Your task to perform on an android device: Toggle the flashlight Image 0: 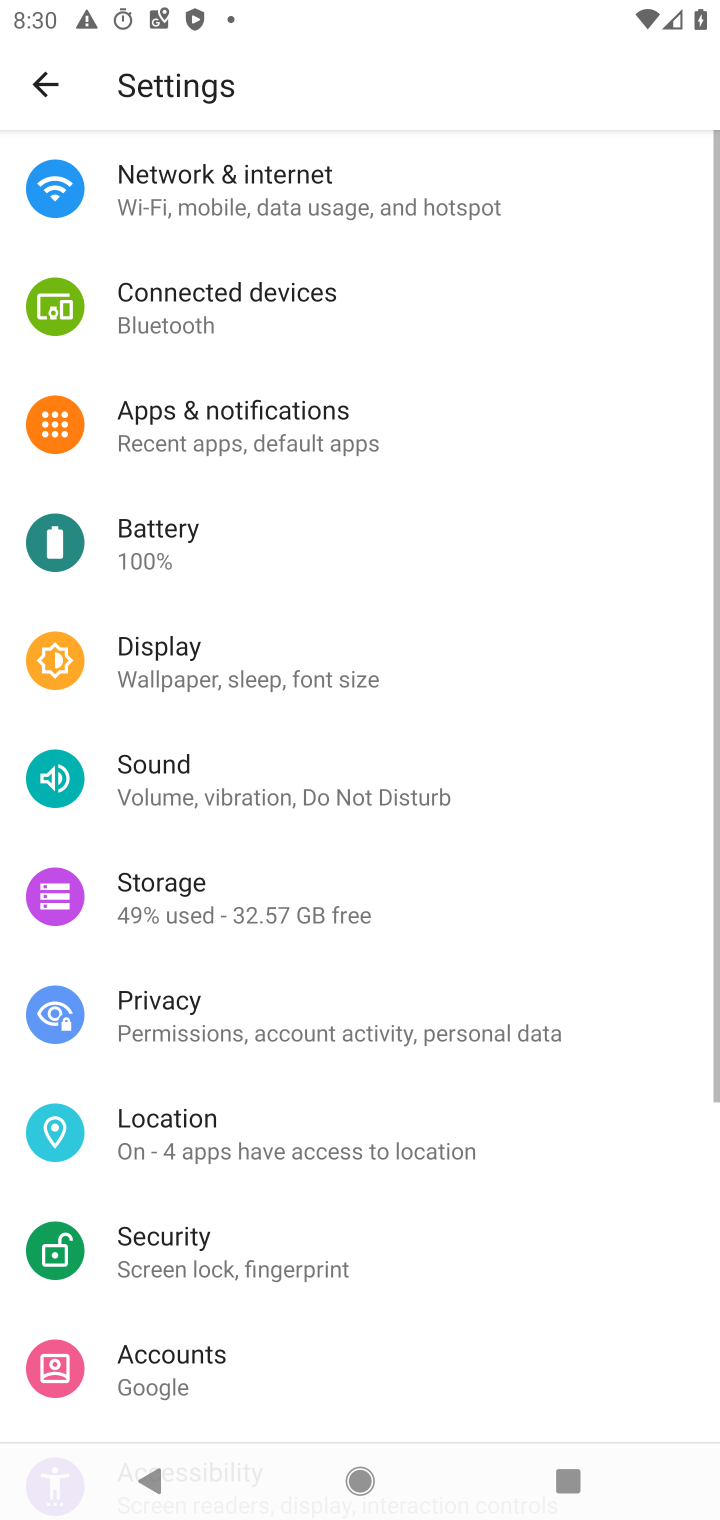
Step 0: press home button
Your task to perform on an android device: Toggle the flashlight Image 1: 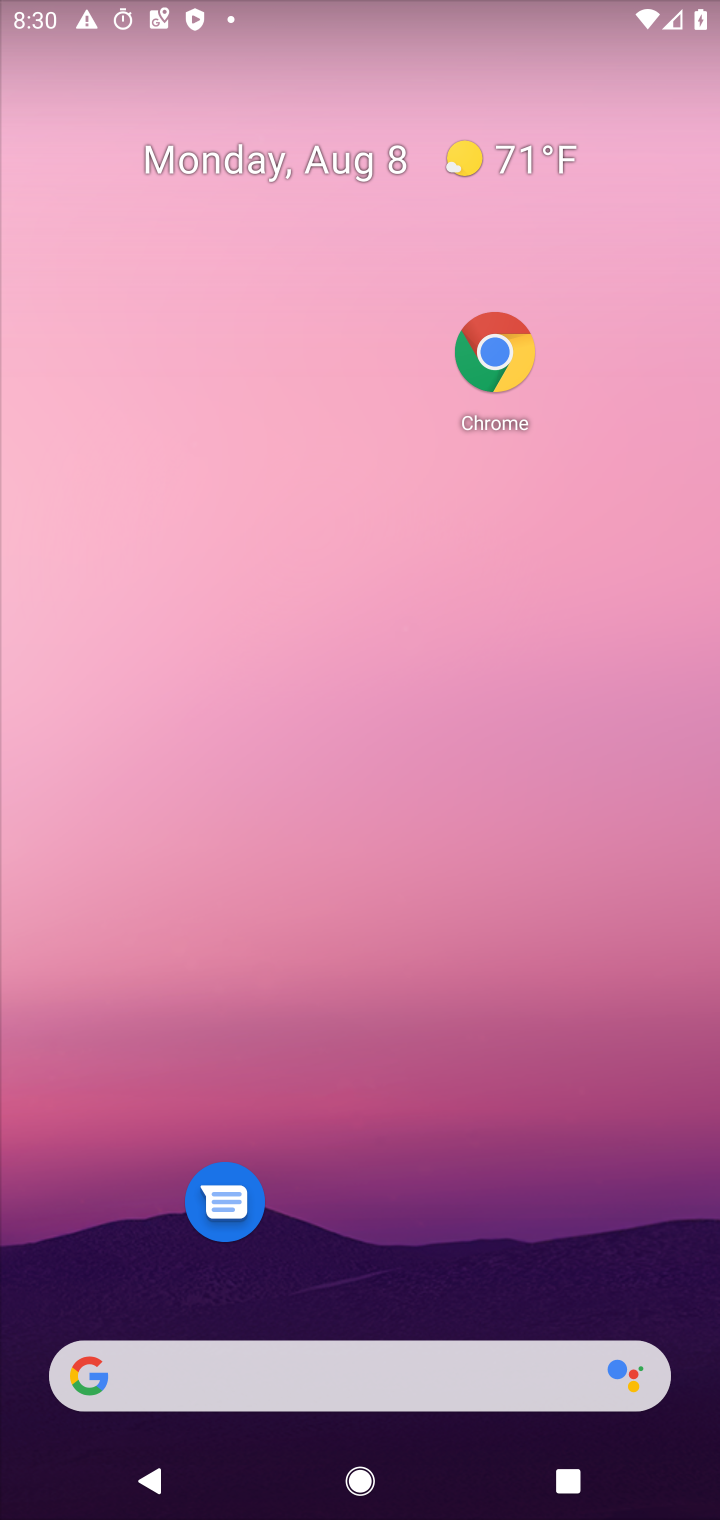
Step 1: task complete